Your task to perform on an android device: search for starred emails in the gmail app Image 0: 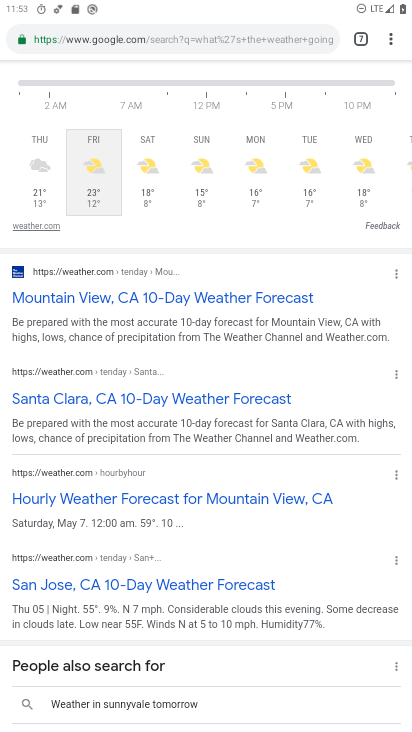
Step 0: press home button
Your task to perform on an android device: search for starred emails in the gmail app Image 1: 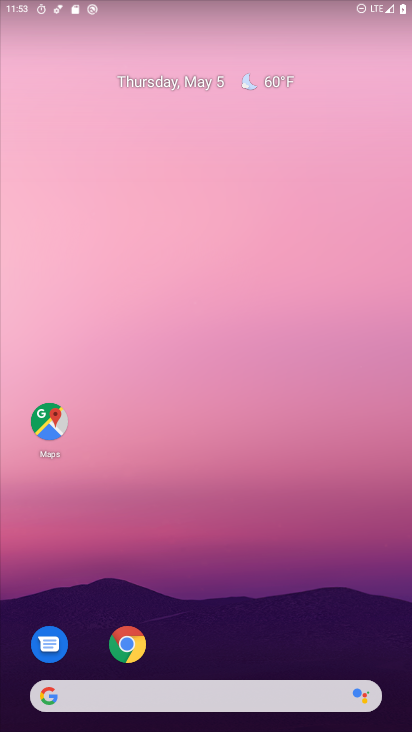
Step 1: drag from (329, 623) to (338, 163)
Your task to perform on an android device: search for starred emails in the gmail app Image 2: 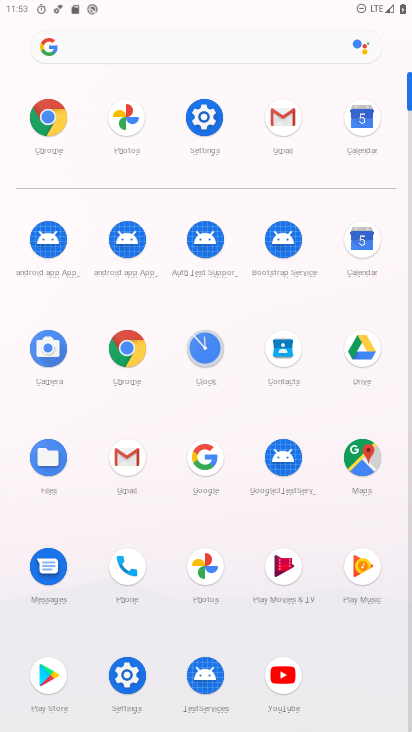
Step 2: click (139, 474)
Your task to perform on an android device: search for starred emails in the gmail app Image 3: 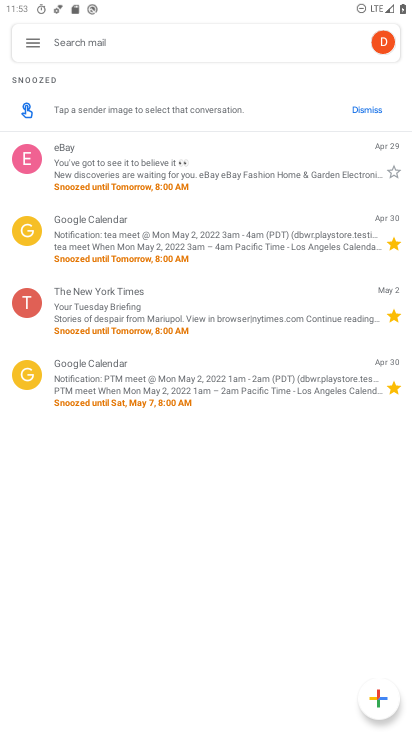
Step 3: click (29, 46)
Your task to perform on an android device: search for starred emails in the gmail app Image 4: 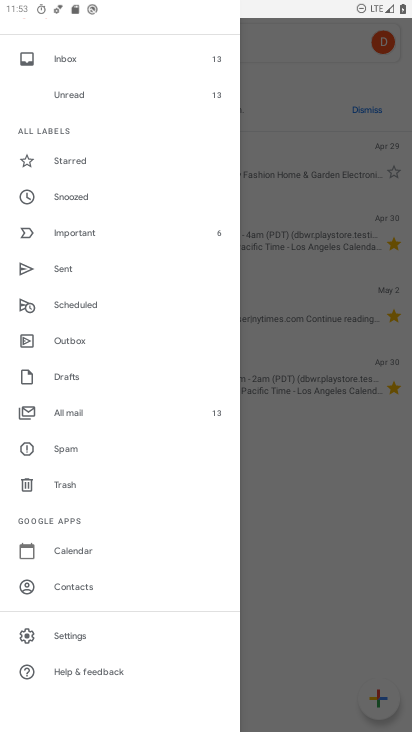
Step 4: click (130, 155)
Your task to perform on an android device: search for starred emails in the gmail app Image 5: 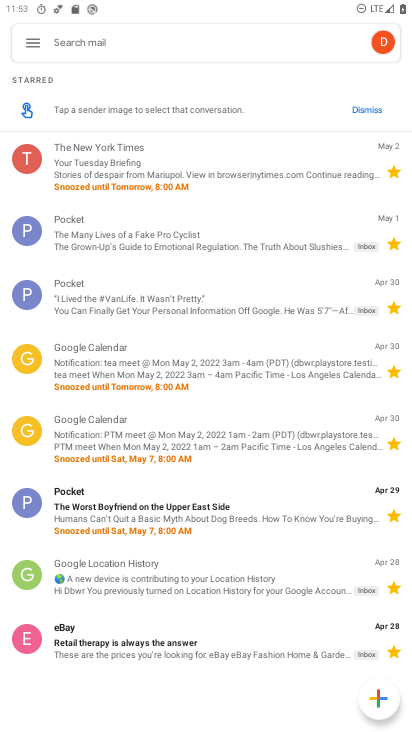
Step 5: task complete